Your task to perform on an android device: Open maps Image 0: 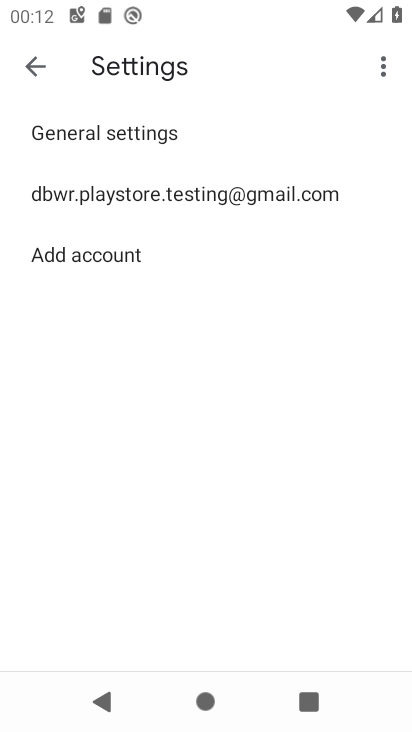
Step 0: press home button
Your task to perform on an android device: Open maps Image 1: 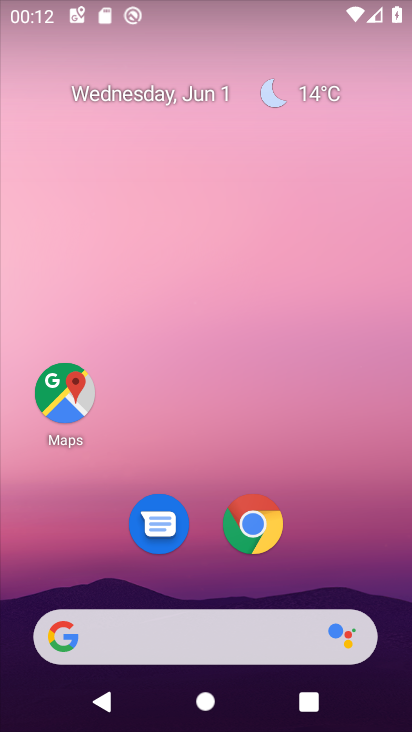
Step 1: click (69, 402)
Your task to perform on an android device: Open maps Image 2: 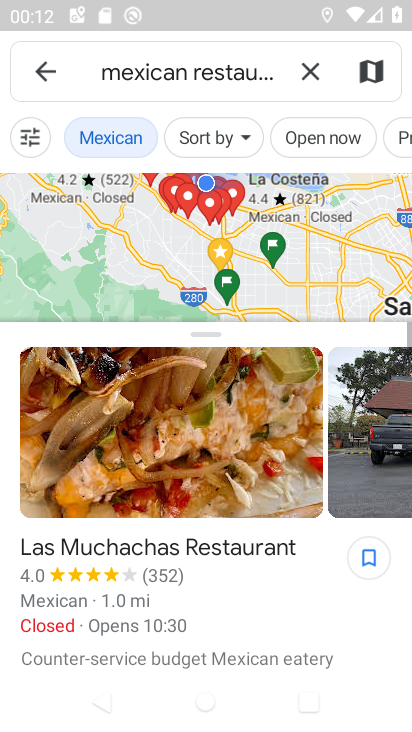
Step 2: click (312, 69)
Your task to perform on an android device: Open maps Image 3: 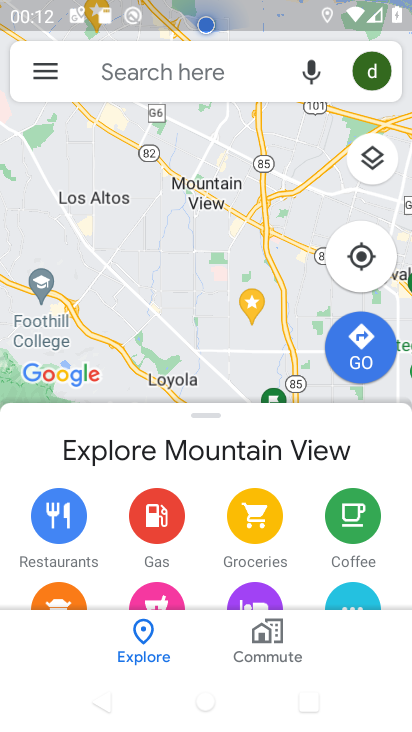
Step 3: task complete